Your task to perform on an android device: move an email to a new category in the gmail app Image 0: 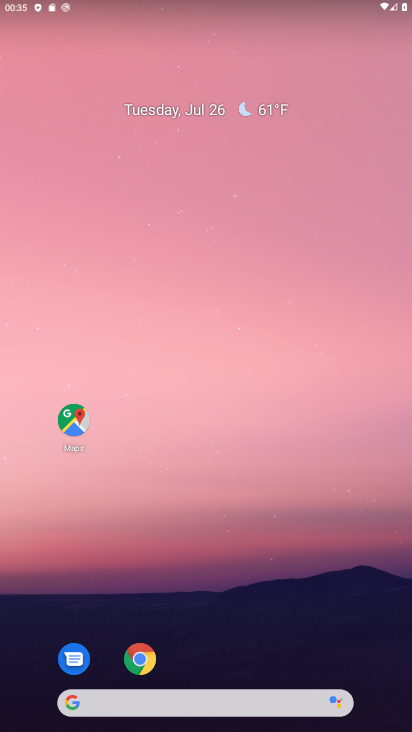
Step 0: click (237, 5)
Your task to perform on an android device: move an email to a new category in the gmail app Image 1: 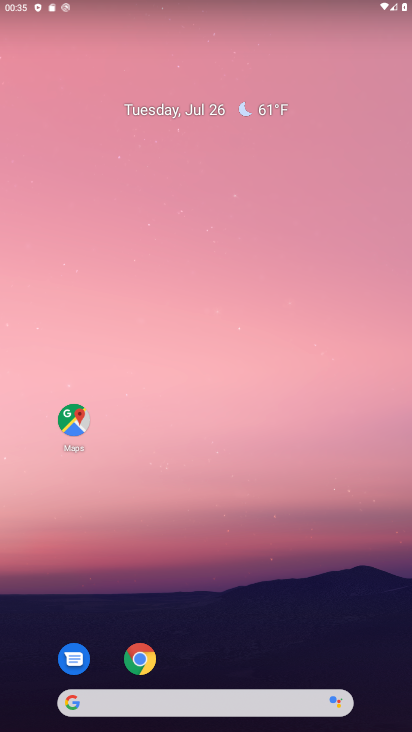
Step 1: drag from (284, 639) to (244, 56)
Your task to perform on an android device: move an email to a new category in the gmail app Image 2: 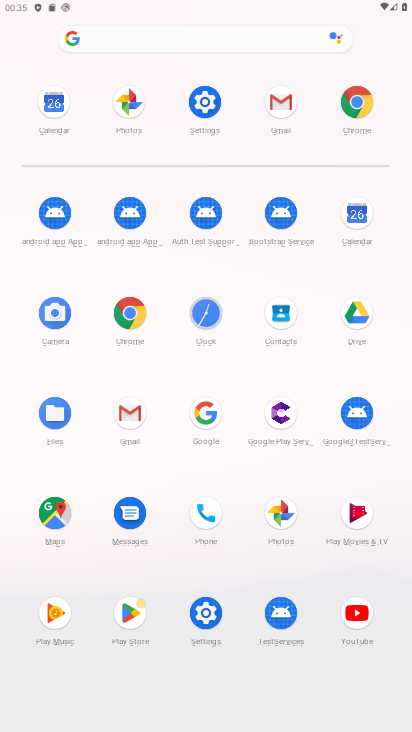
Step 2: click (272, 106)
Your task to perform on an android device: move an email to a new category in the gmail app Image 3: 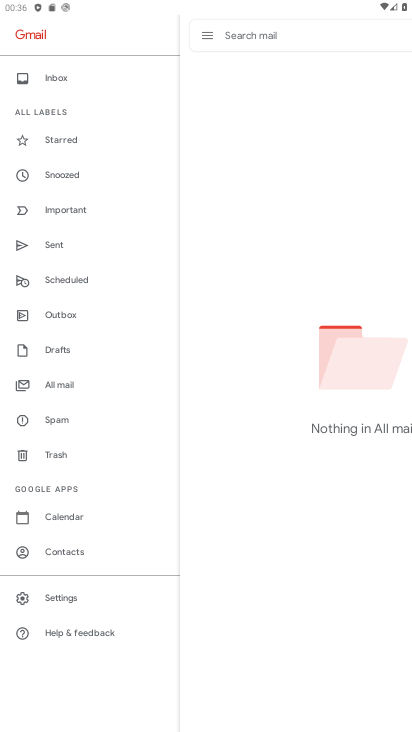
Step 3: click (67, 382)
Your task to perform on an android device: move an email to a new category in the gmail app Image 4: 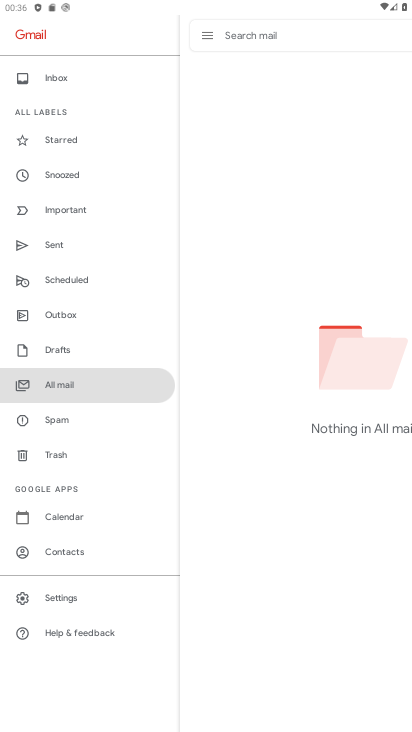
Step 4: task complete